Your task to perform on an android device: Go to Android settings Image 0: 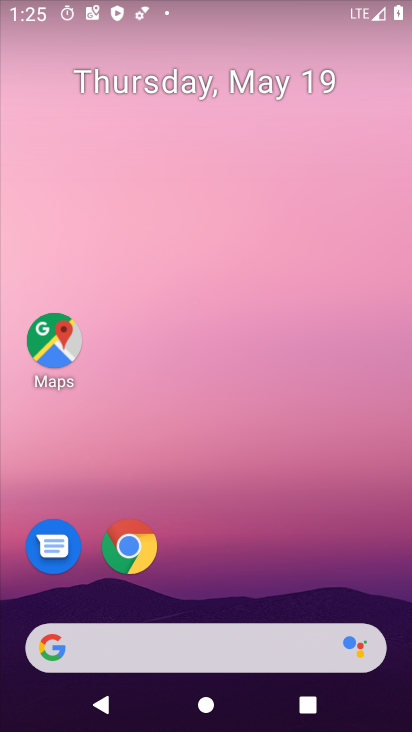
Step 0: drag from (201, 615) to (260, 48)
Your task to perform on an android device: Go to Android settings Image 1: 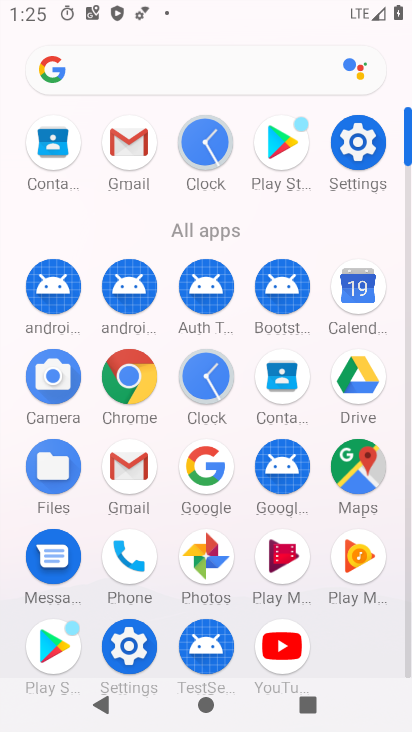
Step 1: click (350, 141)
Your task to perform on an android device: Go to Android settings Image 2: 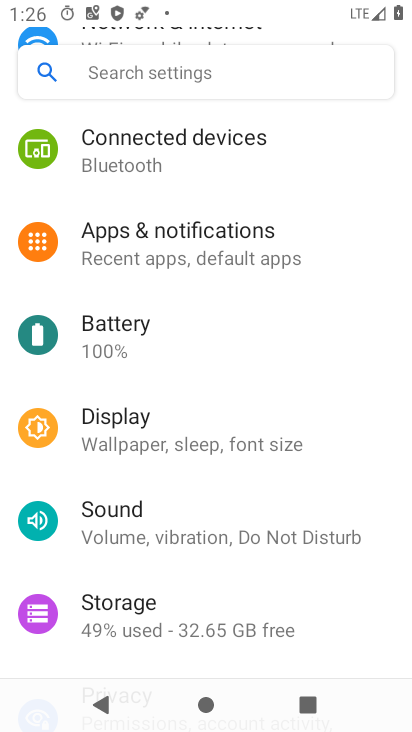
Step 2: drag from (149, 624) to (188, 32)
Your task to perform on an android device: Go to Android settings Image 3: 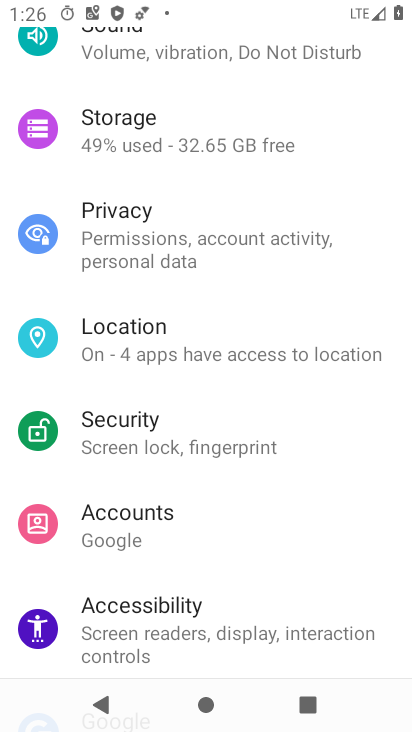
Step 3: drag from (117, 647) to (116, 159)
Your task to perform on an android device: Go to Android settings Image 4: 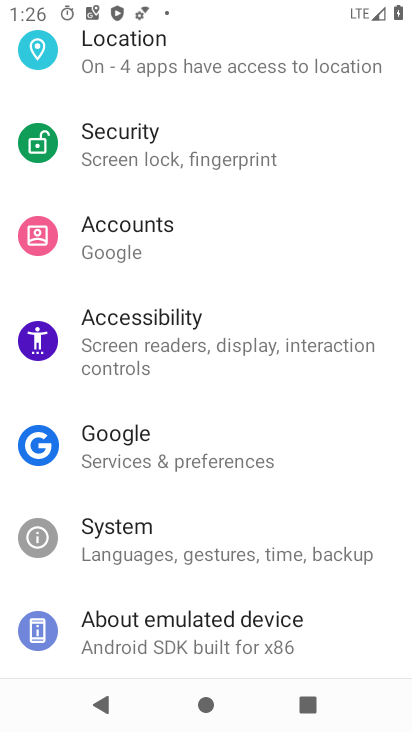
Step 4: drag from (129, 629) to (174, 277)
Your task to perform on an android device: Go to Android settings Image 5: 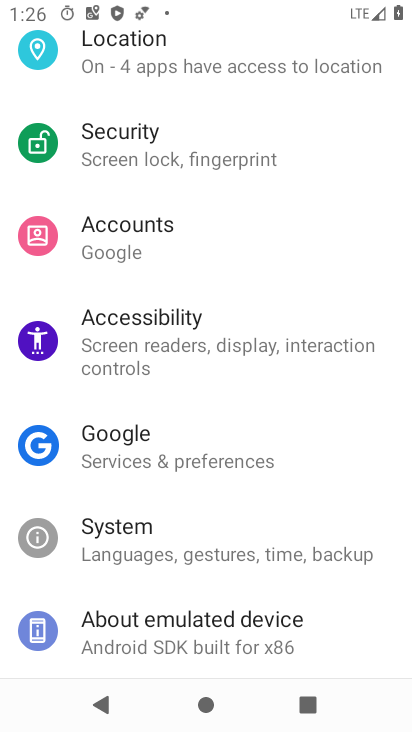
Step 5: drag from (109, 617) to (211, 170)
Your task to perform on an android device: Go to Android settings Image 6: 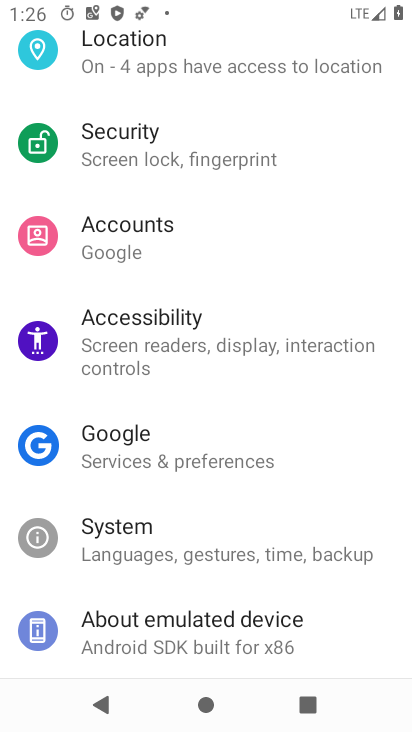
Step 6: click (93, 617)
Your task to perform on an android device: Go to Android settings Image 7: 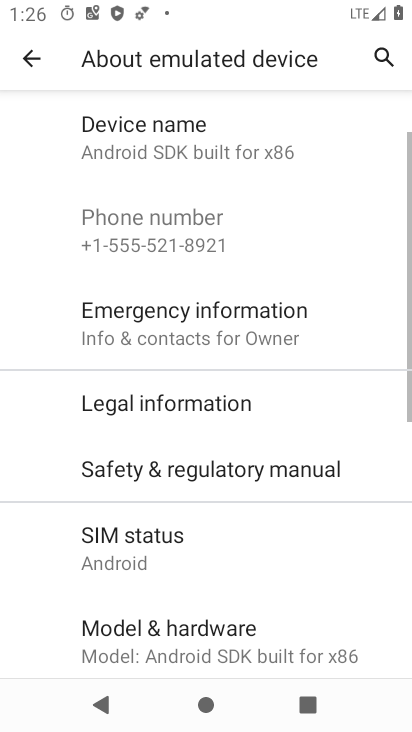
Step 7: task complete